Your task to perform on an android device: Open calendar and show me the fourth week of next month Image 0: 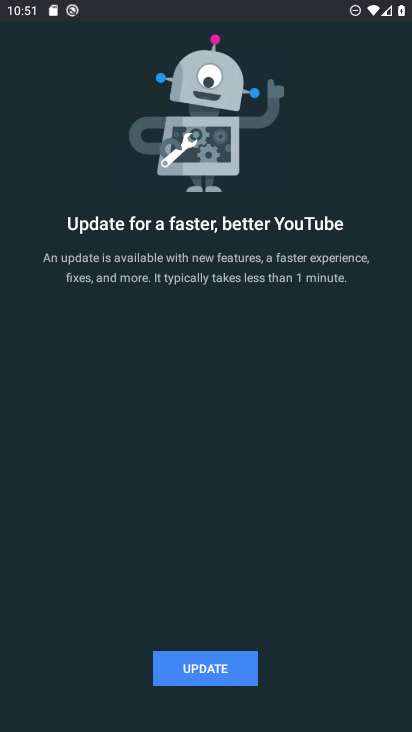
Step 0: press back button
Your task to perform on an android device: Open calendar and show me the fourth week of next month Image 1: 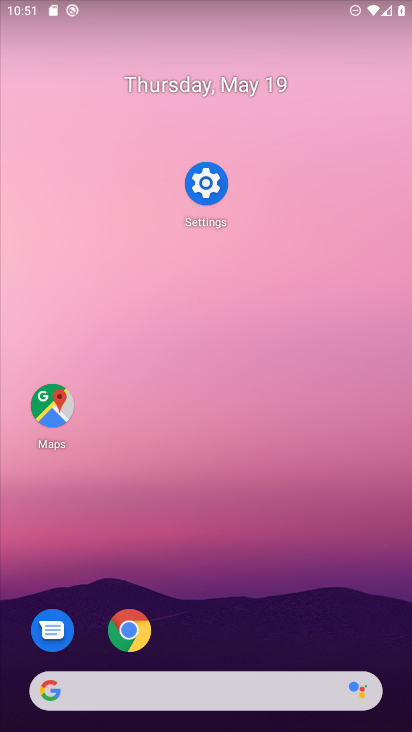
Step 1: drag from (149, 257) to (118, 107)
Your task to perform on an android device: Open calendar and show me the fourth week of next month Image 2: 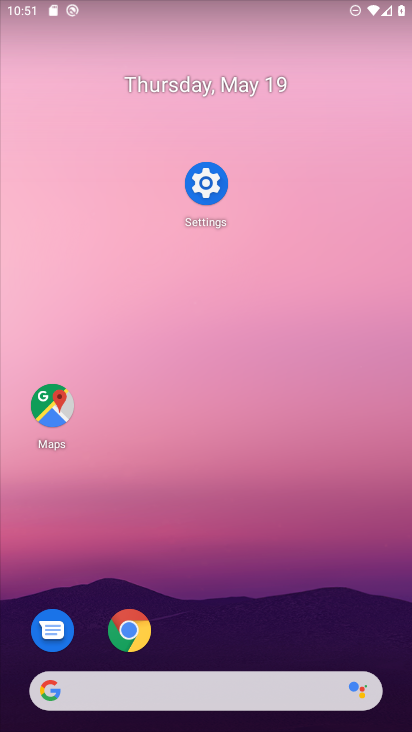
Step 2: drag from (256, 559) to (195, 85)
Your task to perform on an android device: Open calendar and show me the fourth week of next month Image 3: 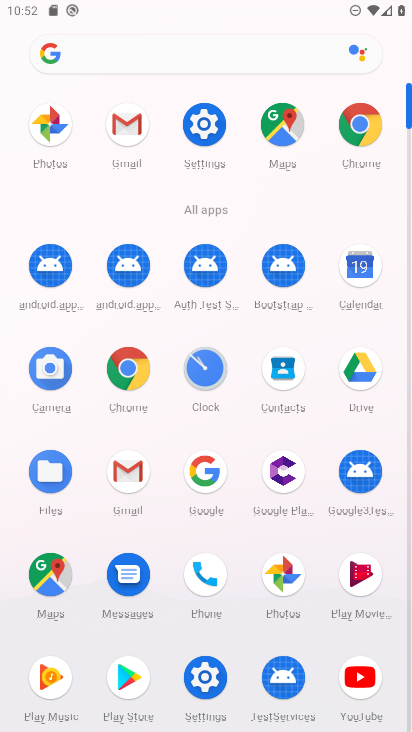
Step 3: click (356, 264)
Your task to perform on an android device: Open calendar and show me the fourth week of next month Image 4: 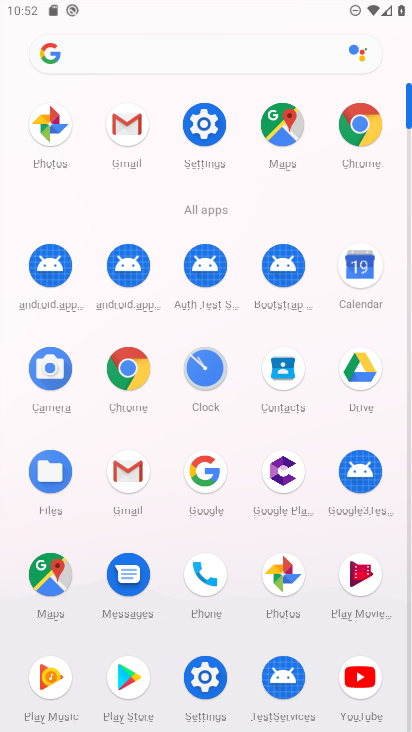
Step 4: click (359, 266)
Your task to perform on an android device: Open calendar and show me the fourth week of next month Image 5: 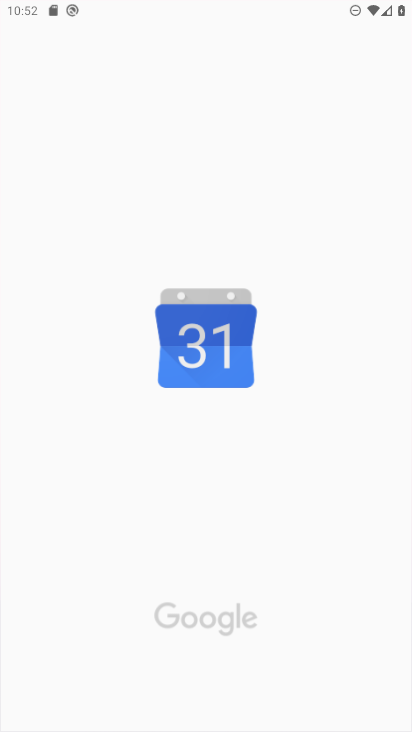
Step 5: click (359, 266)
Your task to perform on an android device: Open calendar and show me the fourth week of next month Image 6: 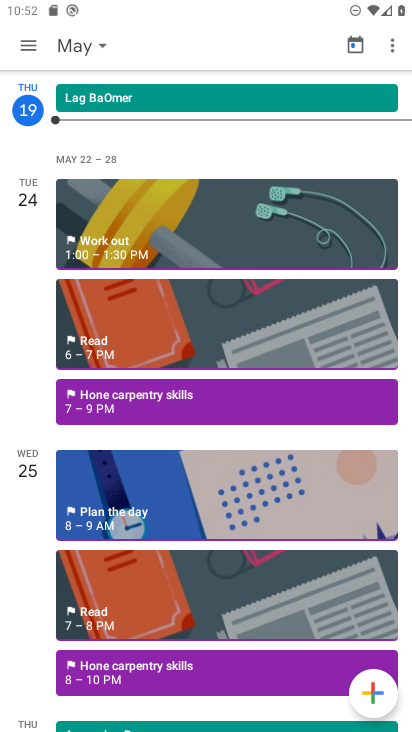
Step 6: click (107, 55)
Your task to perform on an android device: Open calendar and show me the fourth week of next month Image 7: 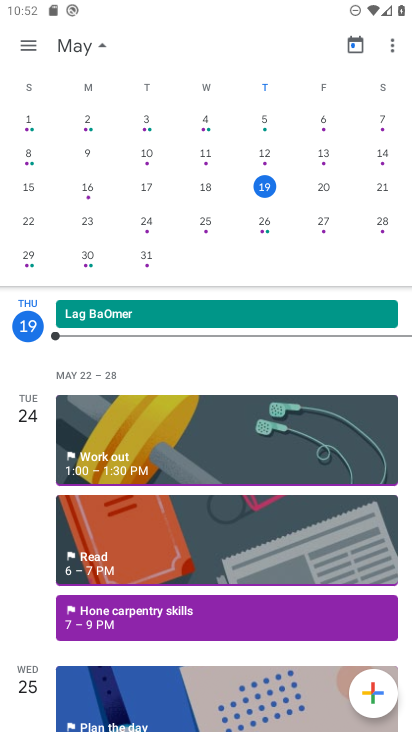
Step 7: drag from (318, 191) to (4, 140)
Your task to perform on an android device: Open calendar and show me the fourth week of next month Image 8: 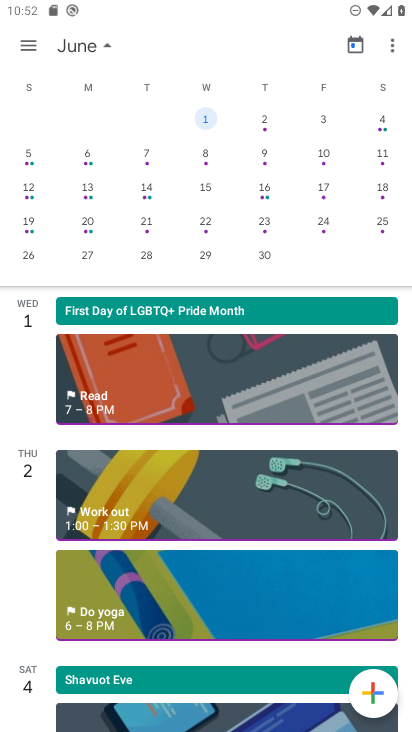
Step 8: drag from (300, 175) to (7, 176)
Your task to perform on an android device: Open calendar and show me the fourth week of next month Image 9: 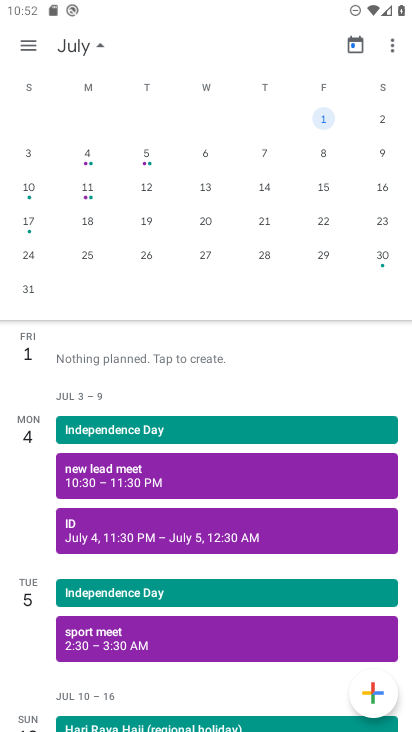
Step 9: drag from (84, 223) to (409, 236)
Your task to perform on an android device: Open calendar and show me the fourth week of next month Image 10: 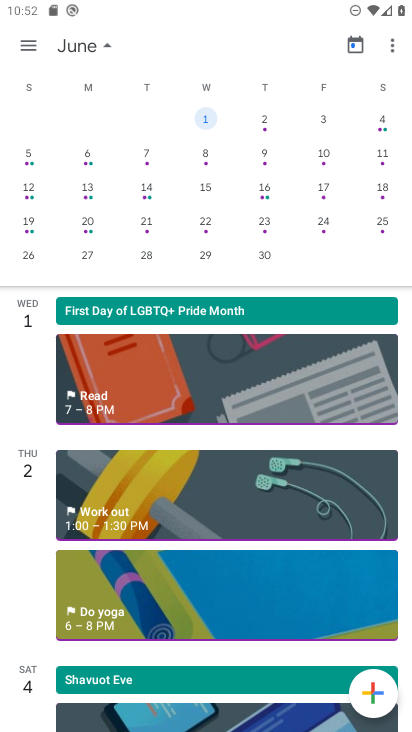
Step 10: click (201, 222)
Your task to perform on an android device: Open calendar and show me the fourth week of next month Image 11: 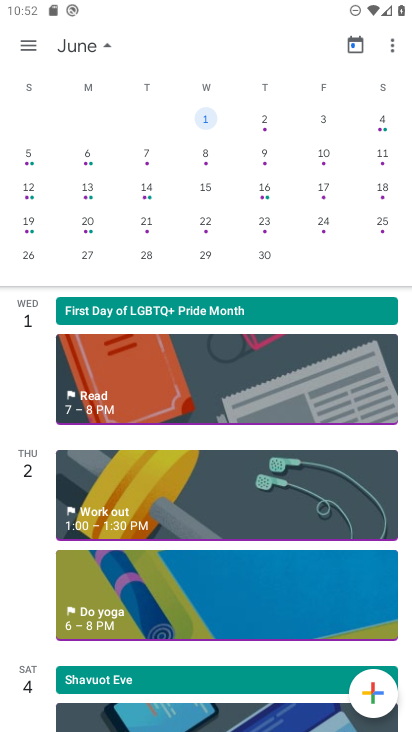
Step 11: click (202, 222)
Your task to perform on an android device: Open calendar and show me the fourth week of next month Image 12: 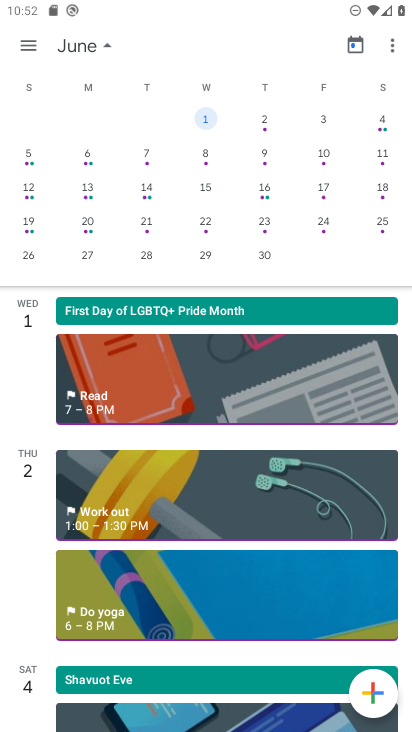
Step 12: click (203, 222)
Your task to perform on an android device: Open calendar and show me the fourth week of next month Image 13: 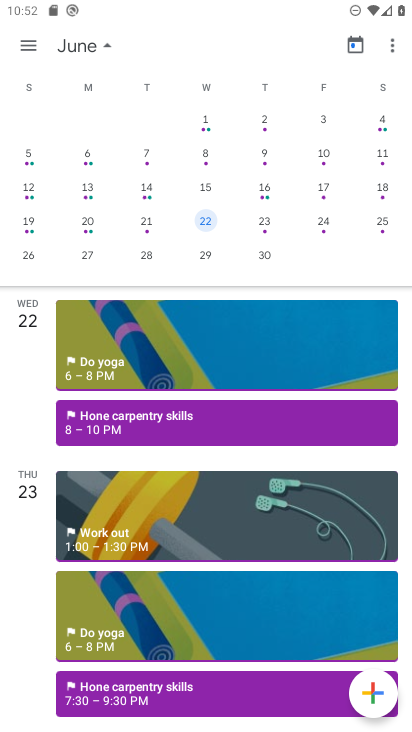
Step 13: click (206, 221)
Your task to perform on an android device: Open calendar and show me the fourth week of next month Image 14: 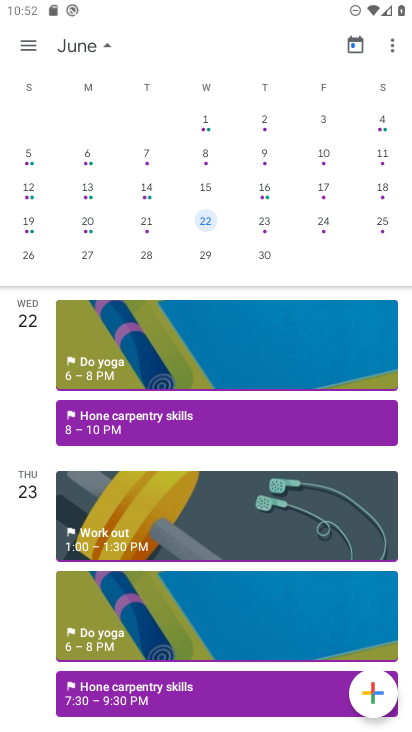
Step 14: task complete